Your task to perform on an android device: change your default location settings in chrome Image 0: 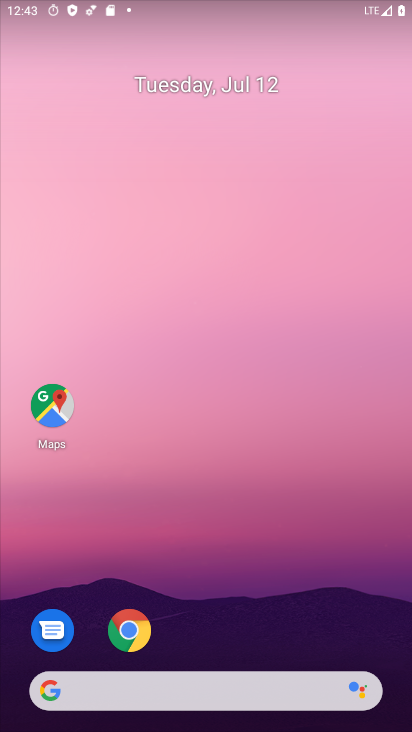
Step 0: click (130, 629)
Your task to perform on an android device: change your default location settings in chrome Image 1: 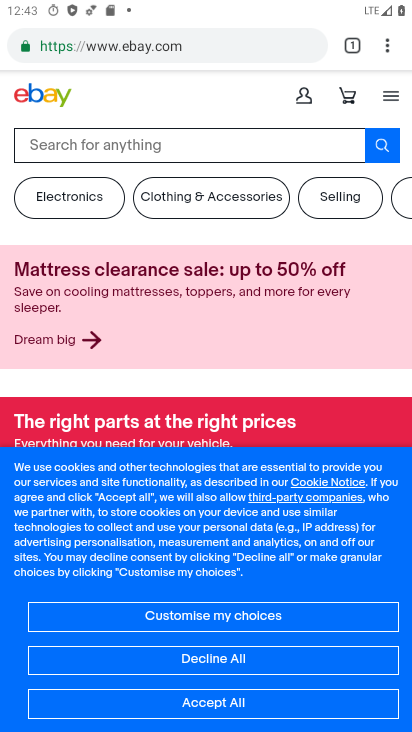
Step 1: click (384, 45)
Your task to perform on an android device: change your default location settings in chrome Image 2: 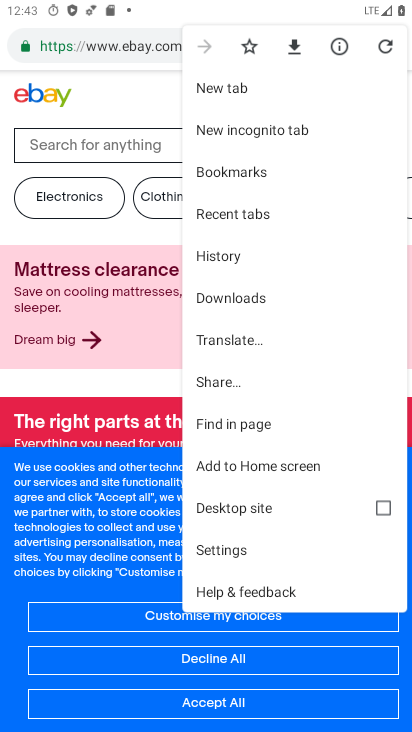
Step 2: click (222, 545)
Your task to perform on an android device: change your default location settings in chrome Image 3: 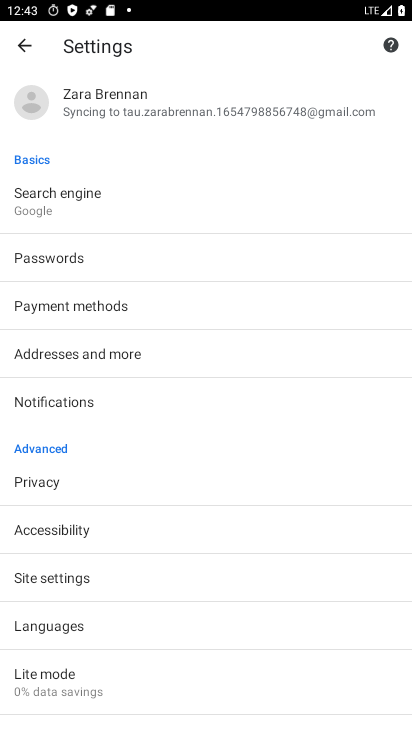
Step 3: click (89, 576)
Your task to perform on an android device: change your default location settings in chrome Image 4: 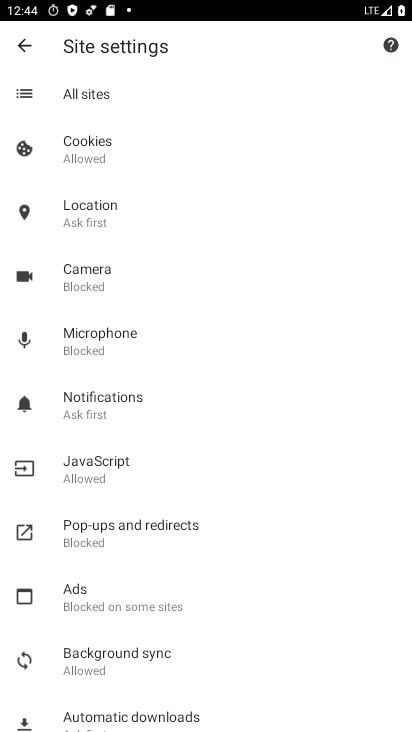
Step 4: click (145, 213)
Your task to perform on an android device: change your default location settings in chrome Image 5: 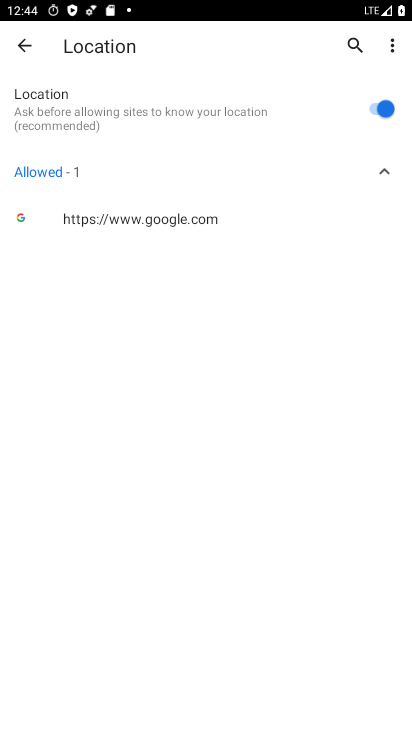
Step 5: click (386, 103)
Your task to perform on an android device: change your default location settings in chrome Image 6: 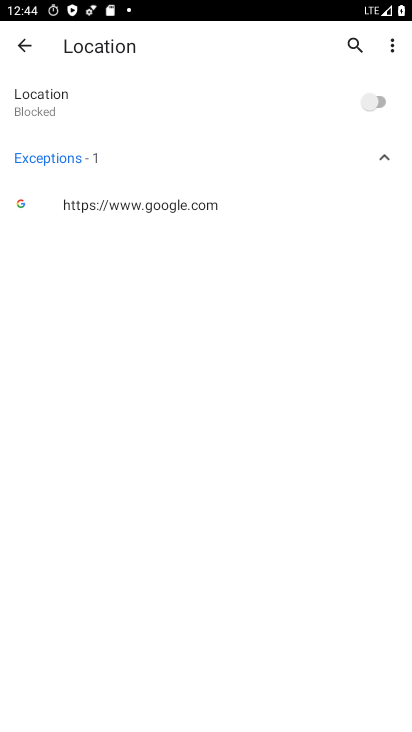
Step 6: task complete